Your task to perform on an android device: visit the assistant section in the google photos Image 0: 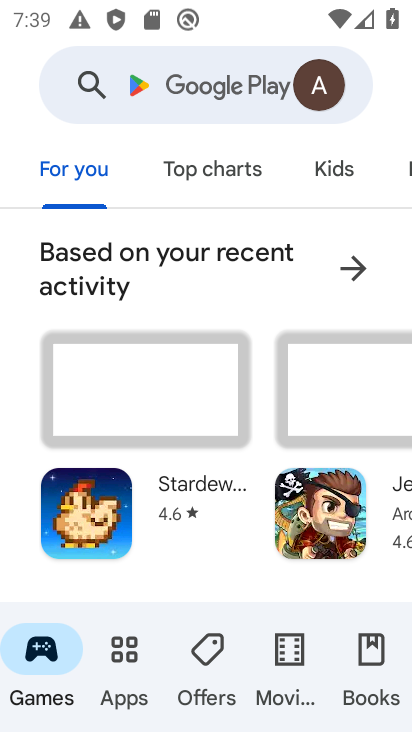
Step 0: press home button
Your task to perform on an android device: visit the assistant section in the google photos Image 1: 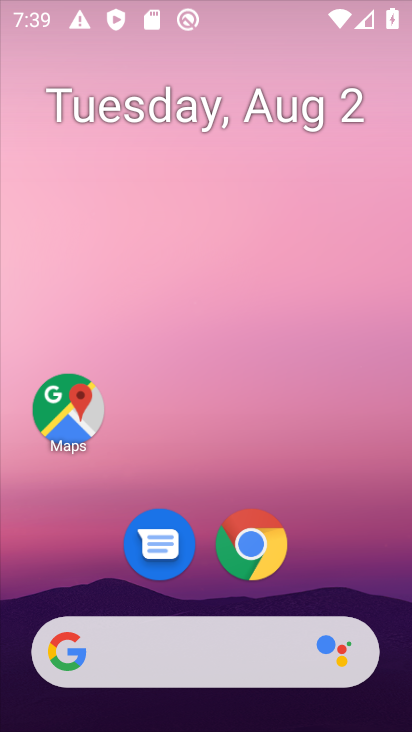
Step 1: drag from (135, 601) to (125, 95)
Your task to perform on an android device: visit the assistant section in the google photos Image 2: 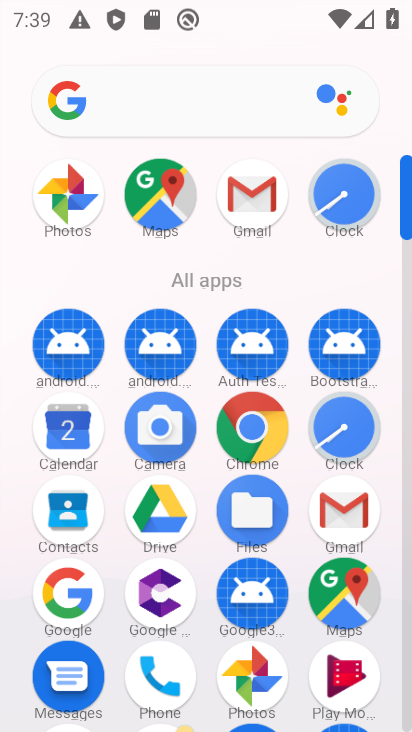
Step 2: click (261, 683)
Your task to perform on an android device: visit the assistant section in the google photos Image 3: 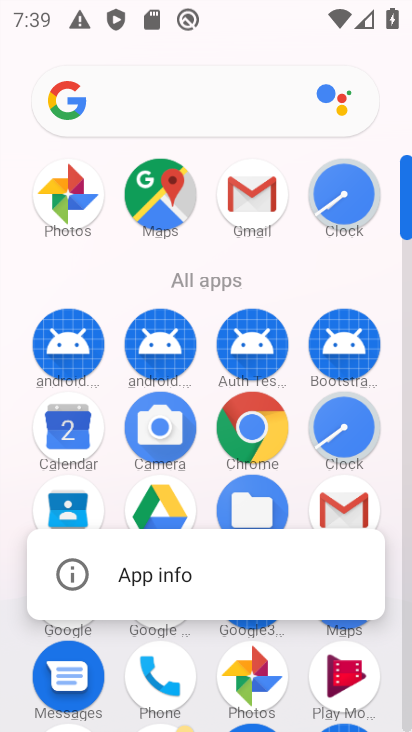
Step 3: click (260, 682)
Your task to perform on an android device: visit the assistant section in the google photos Image 4: 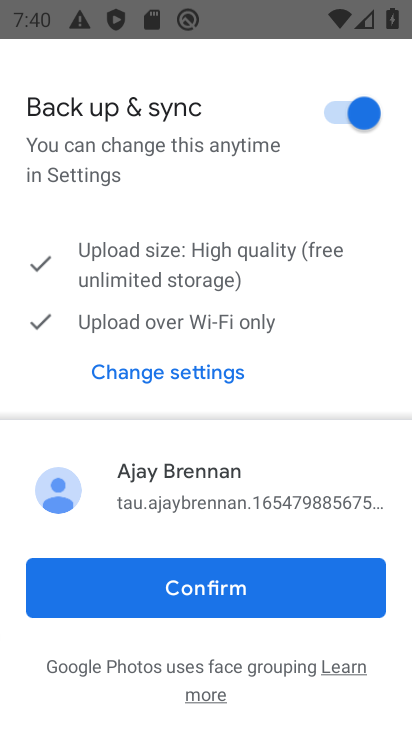
Step 4: click (198, 605)
Your task to perform on an android device: visit the assistant section in the google photos Image 5: 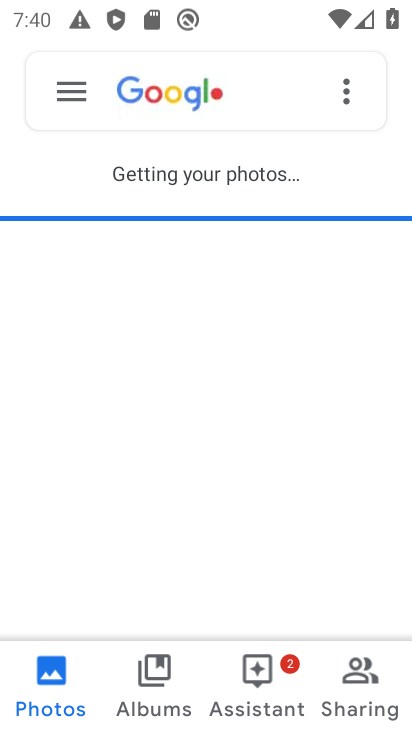
Step 5: click (251, 674)
Your task to perform on an android device: visit the assistant section in the google photos Image 6: 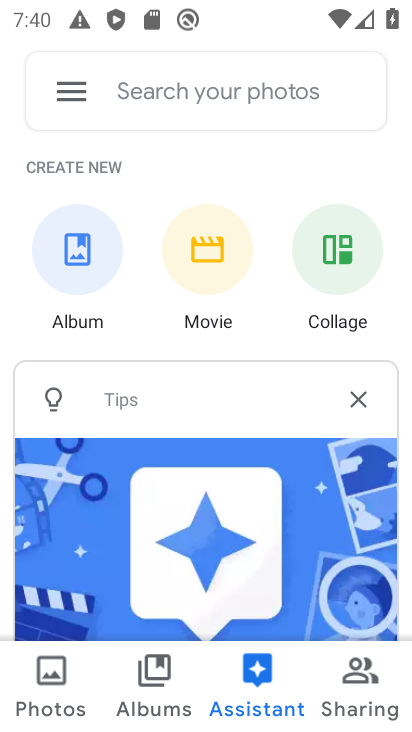
Step 6: task complete